Your task to perform on an android device: toggle show notifications on the lock screen Image 0: 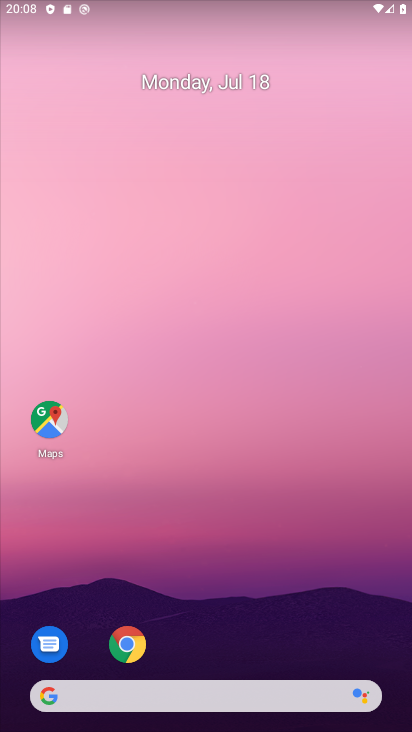
Step 0: drag from (210, 701) to (322, 208)
Your task to perform on an android device: toggle show notifications on the lock screen Image 1: 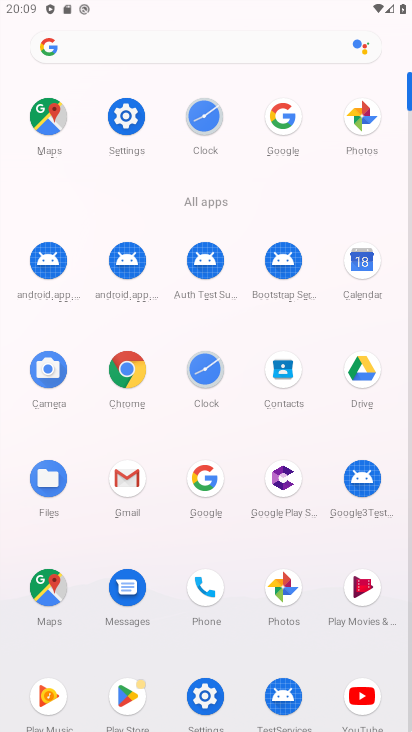
Step 1: click (126, 117)
Your task to perform on an android device: toggle show notifications on the lock screen Image 2: 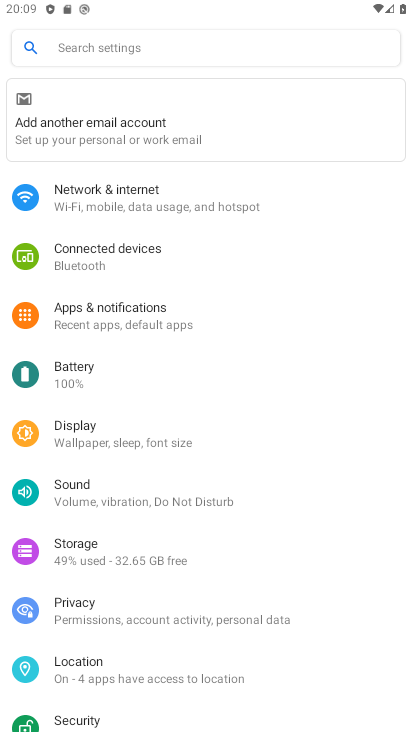
Step 2: click (103, 313)
Your task to perform on an android device: toggle show notifications on the lock screen Image 3: 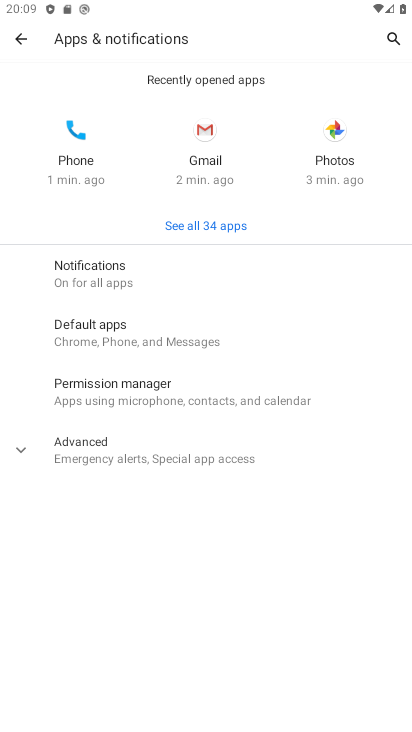
Step 3: click (106, 278)
Your task to perform on an android device: toggle show notifications on the lock screen Image 4: 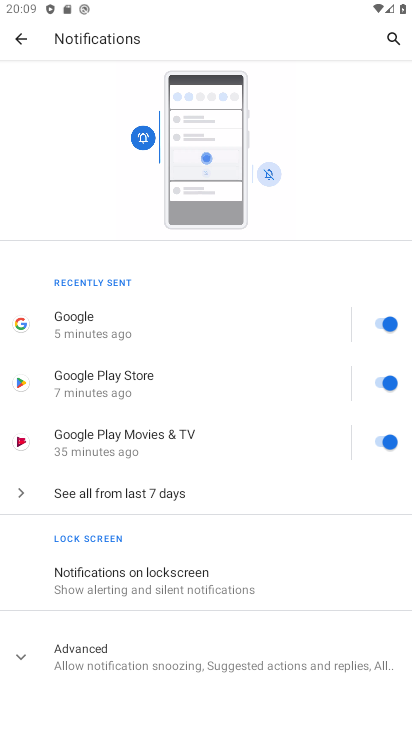
Step 4: click (106, 580)
Your task to perform on an android device: toggle show notifications on the lock screen Image 5: 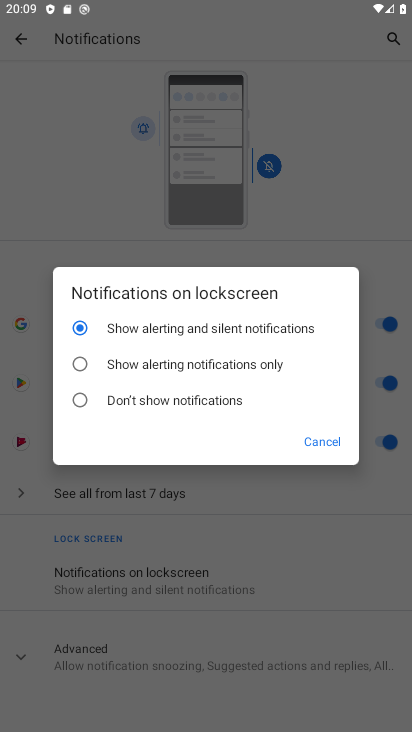
Step 5: click (76, 397)
Your task to perform on an android device: toggle show notifications on the lock screen Image 6: 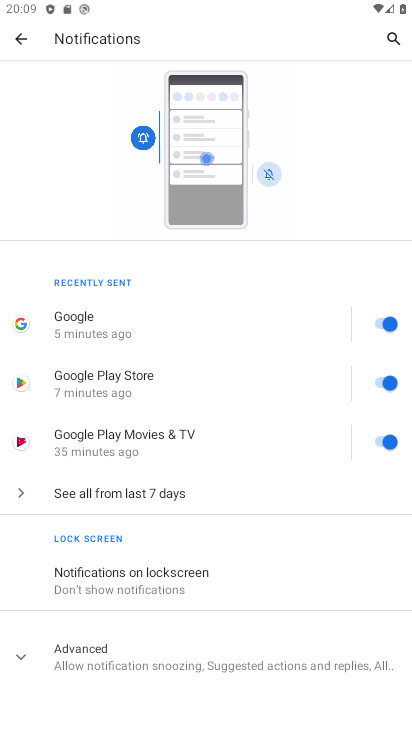
Step 6: task complete